Your task to perform on an android device: open app "PlayWell" (install if not already installed) and go to login screen Image 0: 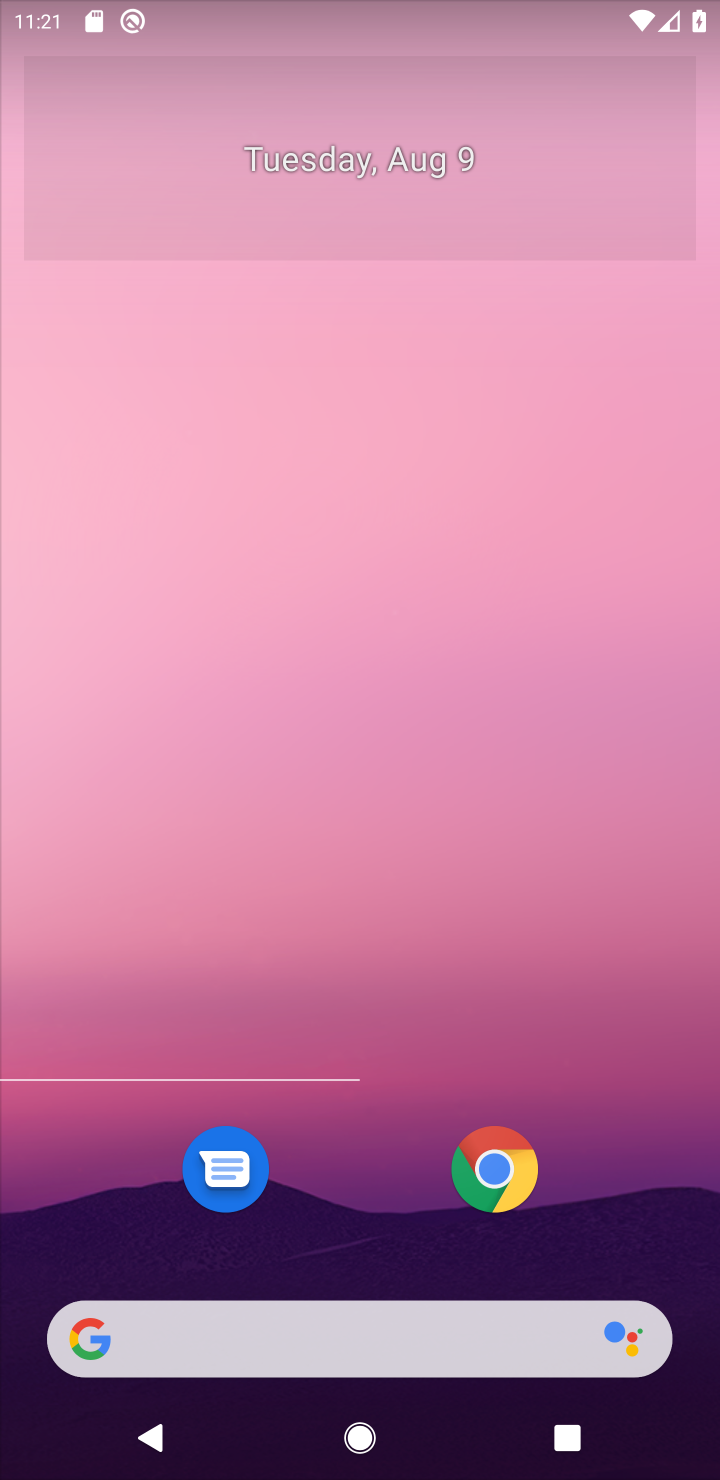
Step 0: press home button
Your task to perform on an android device: open app "PlayWell" (install if not already installed) and go to login screen Image 1: 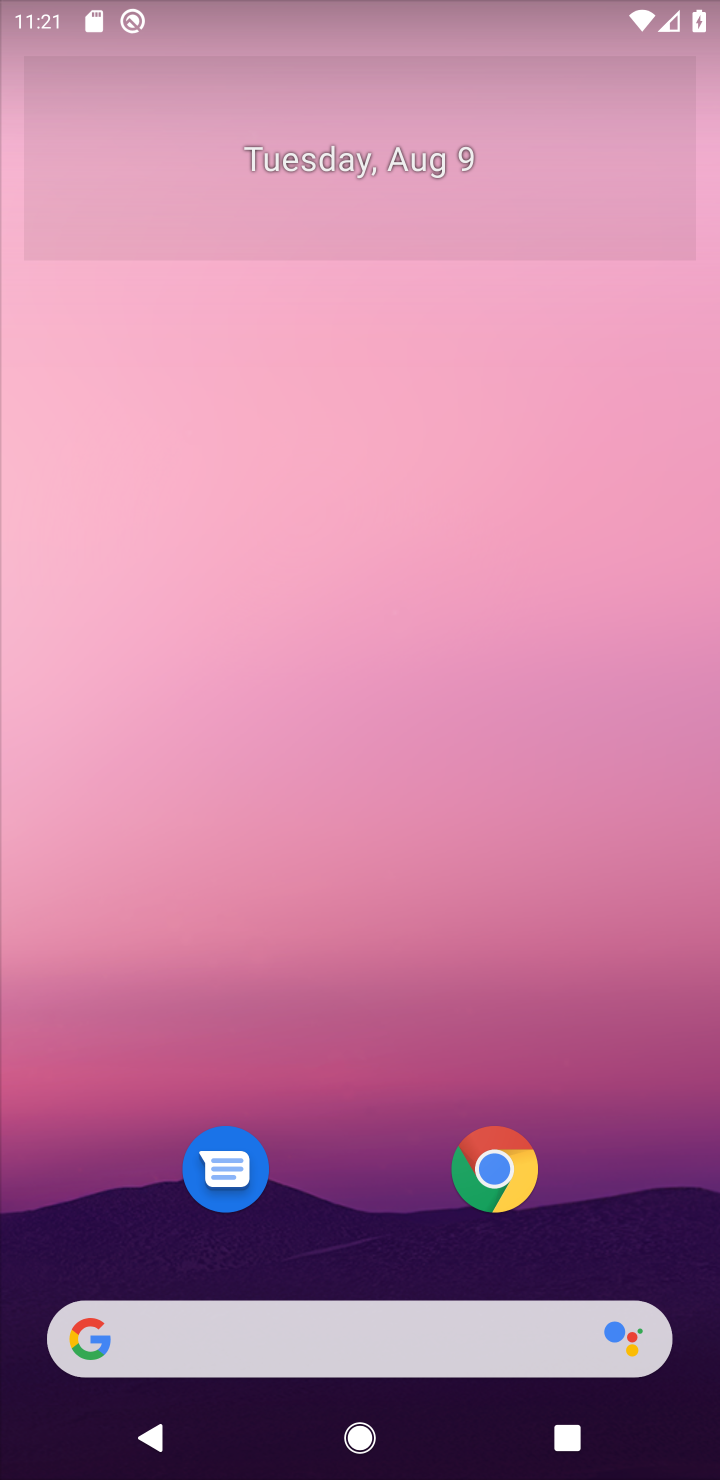
Step 1: drag from (605, 1134) to (603, 105)
Your task to perform on an android device: open app "PlayWell" (install if not already installed) and go to login screen Image 2: 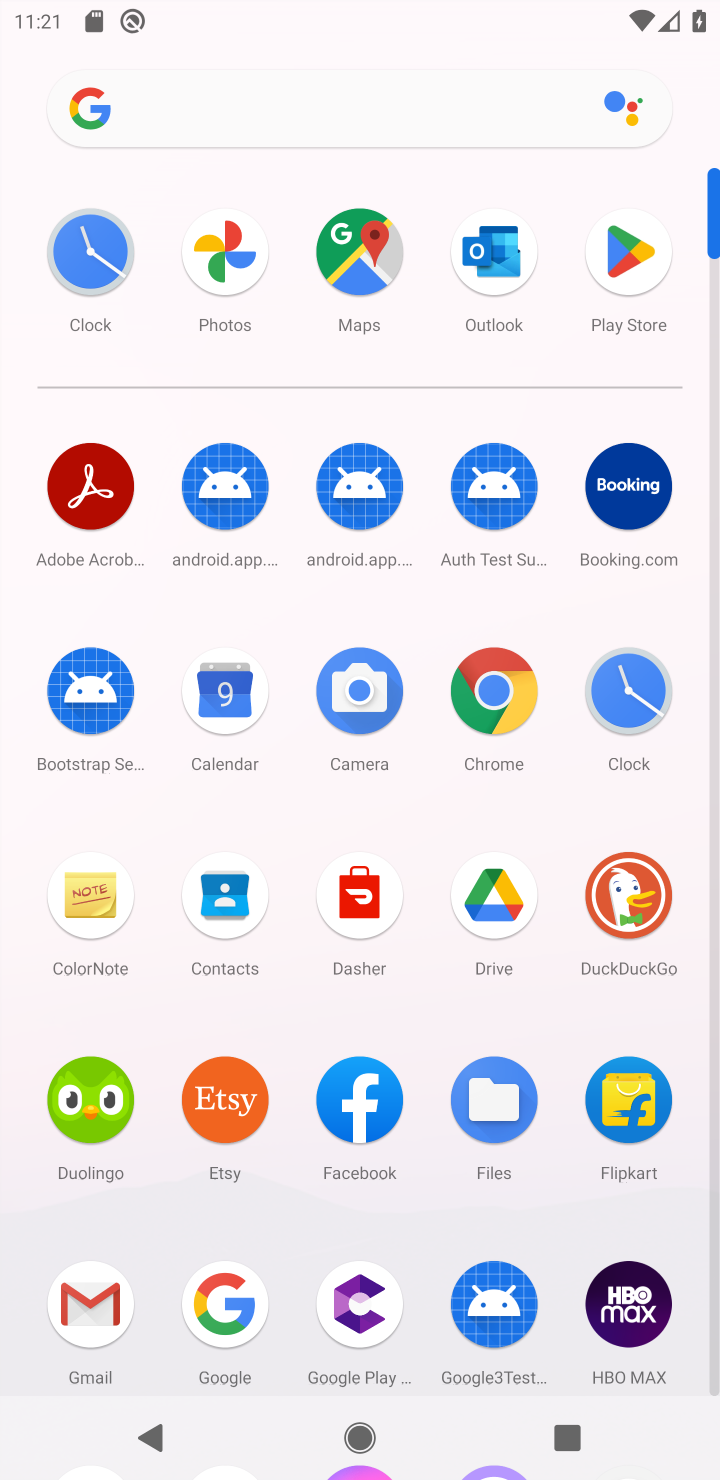
Step 2: click (626, 255)
Your task to perform on an android device: open app "PlayWell" (install if not already installed) and go to login screen Image 3: 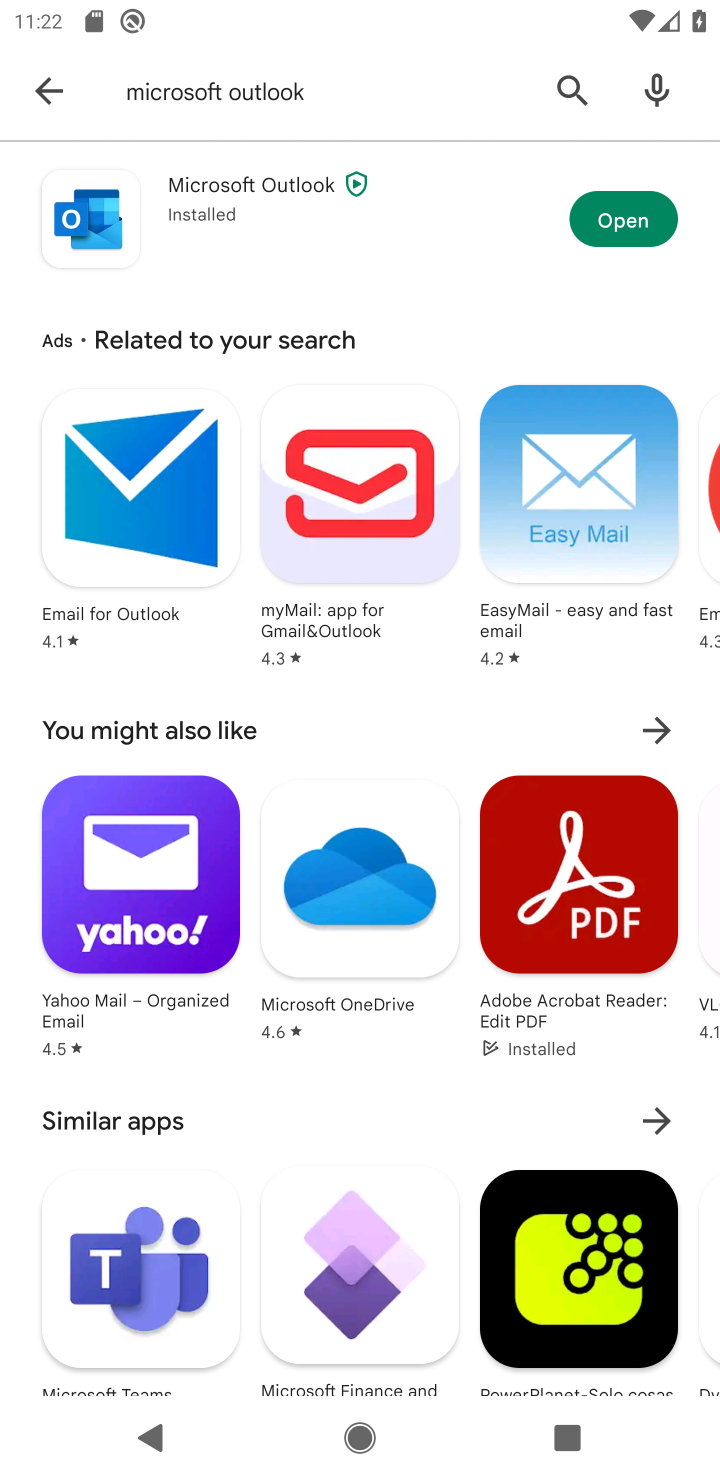
Step 3: click (561, 79)
Your task to perform on an android device: open app "PlayWell" (install if not already installed) and go to login screen Image 4: 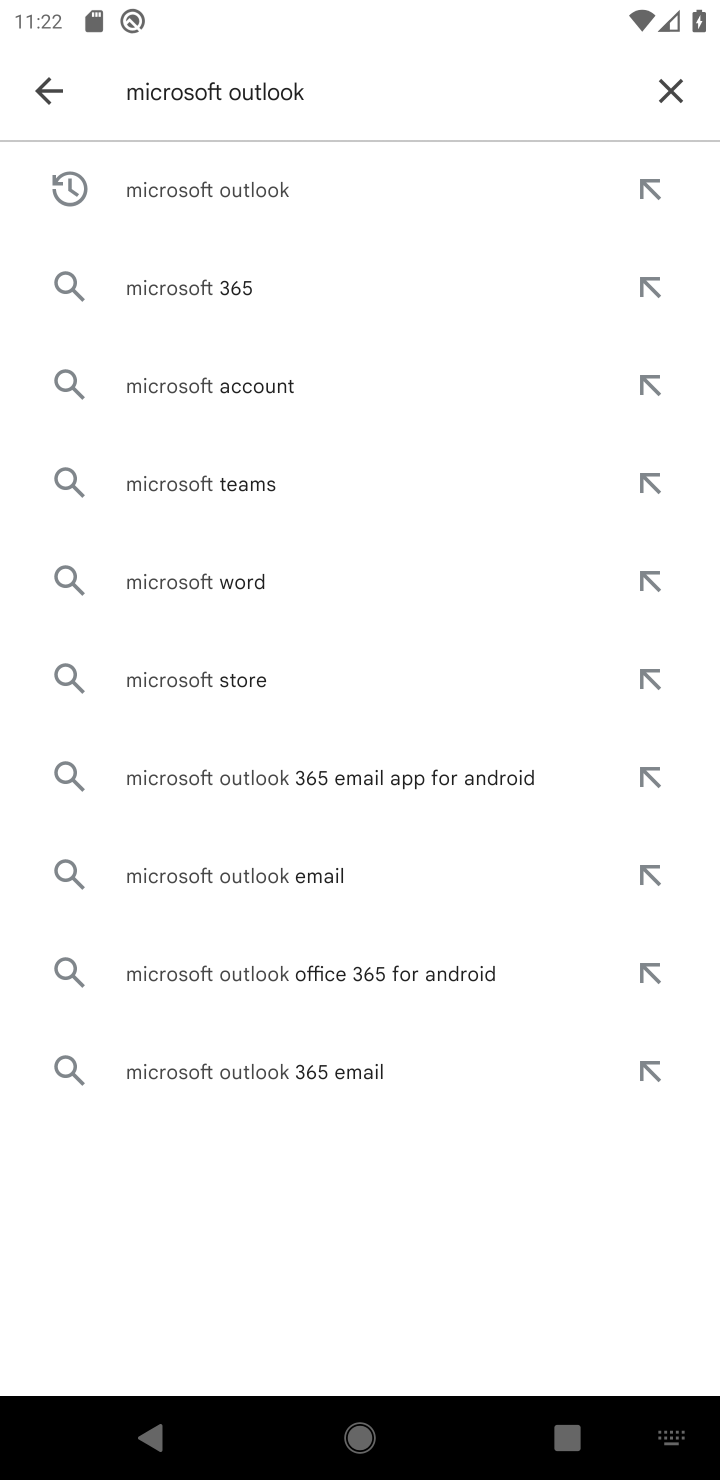
Step 4: click (679, 88)
Your task to perform on an android device: open app "PlayWell" (install if not already installed) and go to login screen Image 5: 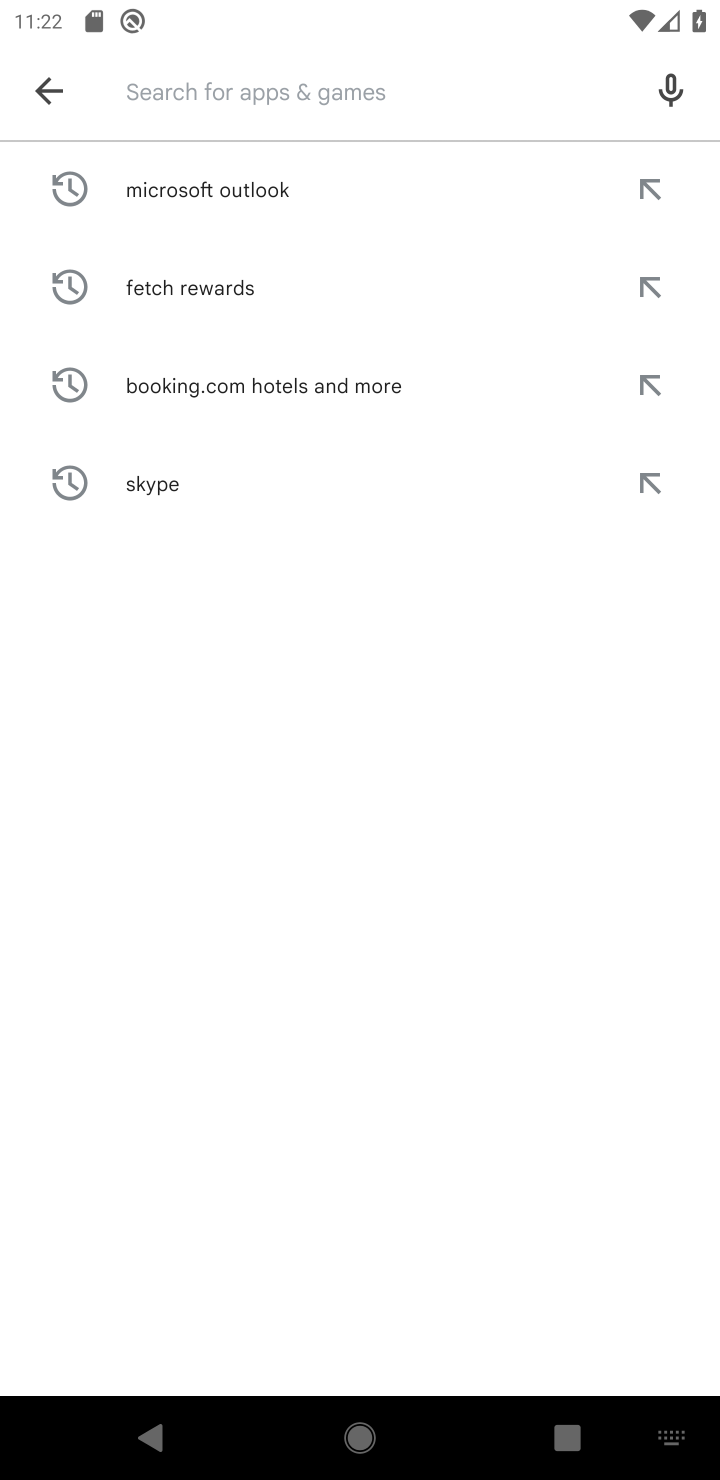
Step 5: click (334, 106)
Your task to perform on an android device: open app "PlayWell" (install if not already installed) and go to login screen Image 6: 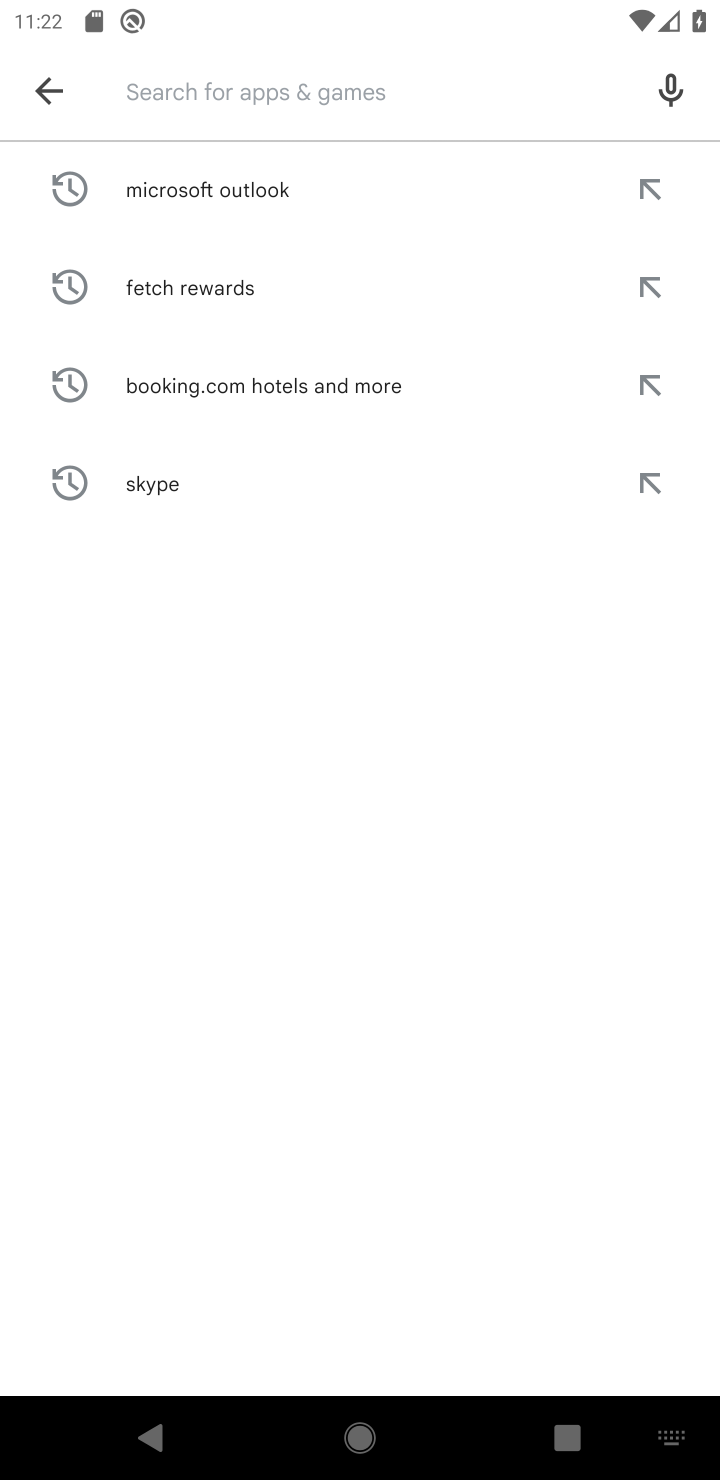
Step 6: type "play well"
Your task to perform on an android device: open app "PlayWell" (install if not already installed) and go to login screen Image 7: 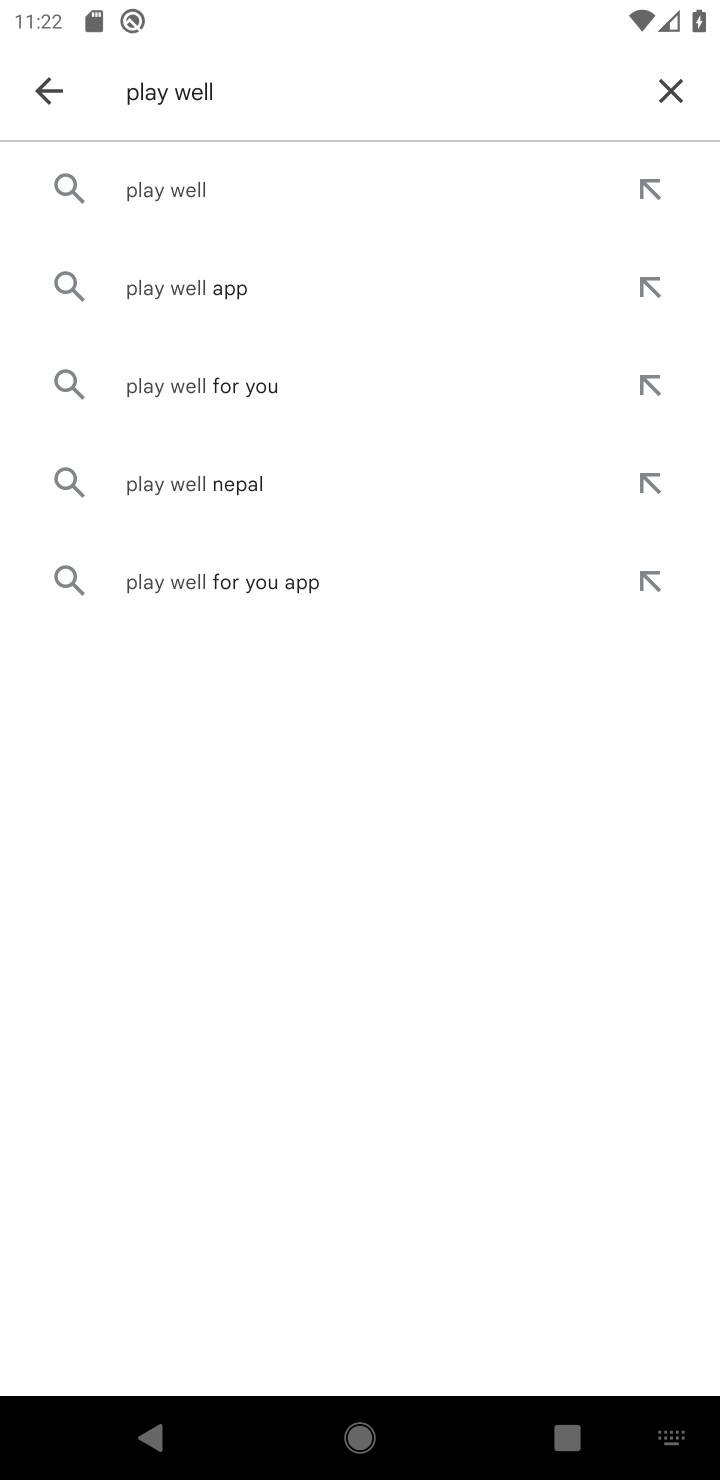
Step 7: click (174, 175)
Your task to perform on an android device: open app "PlayWell" (install if not already installed) and go to login screen Image 8: 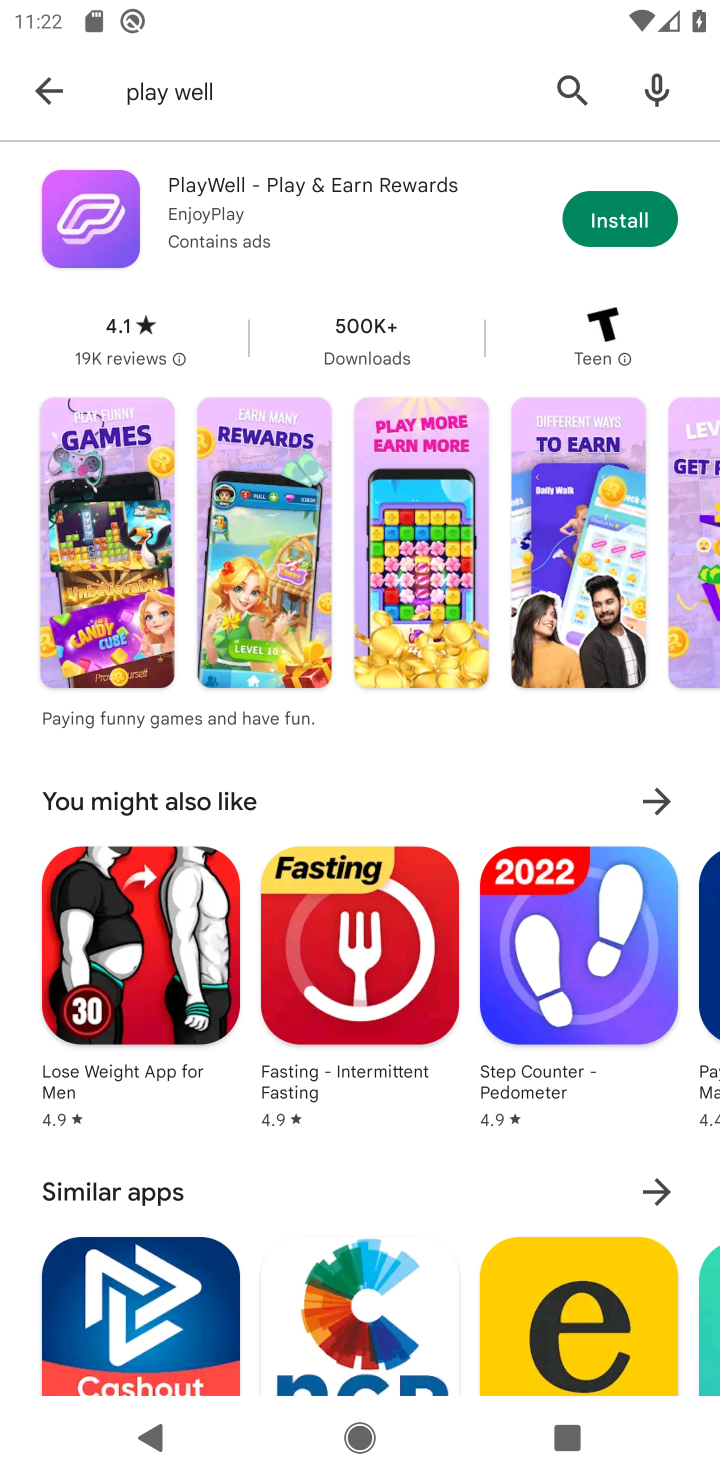
Step 8: click (613, 215)
Your task to perform on an android device: open app "PlayWell" (install if not already installed) and go to login screen Image 9: 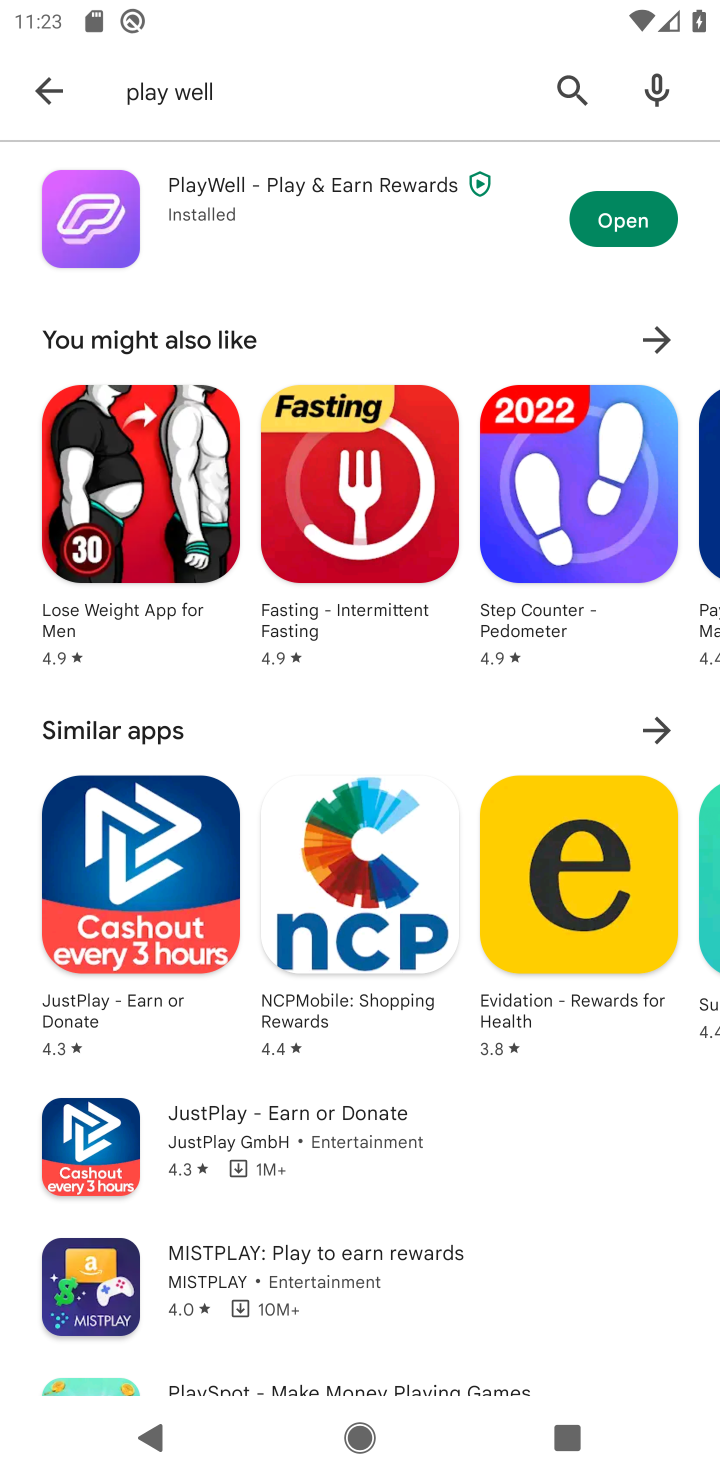
Step 9: click (629, 222)
Your task to perform on an android device: open app "PlayWell" (install if not already installed) and go to login screen Image 10: 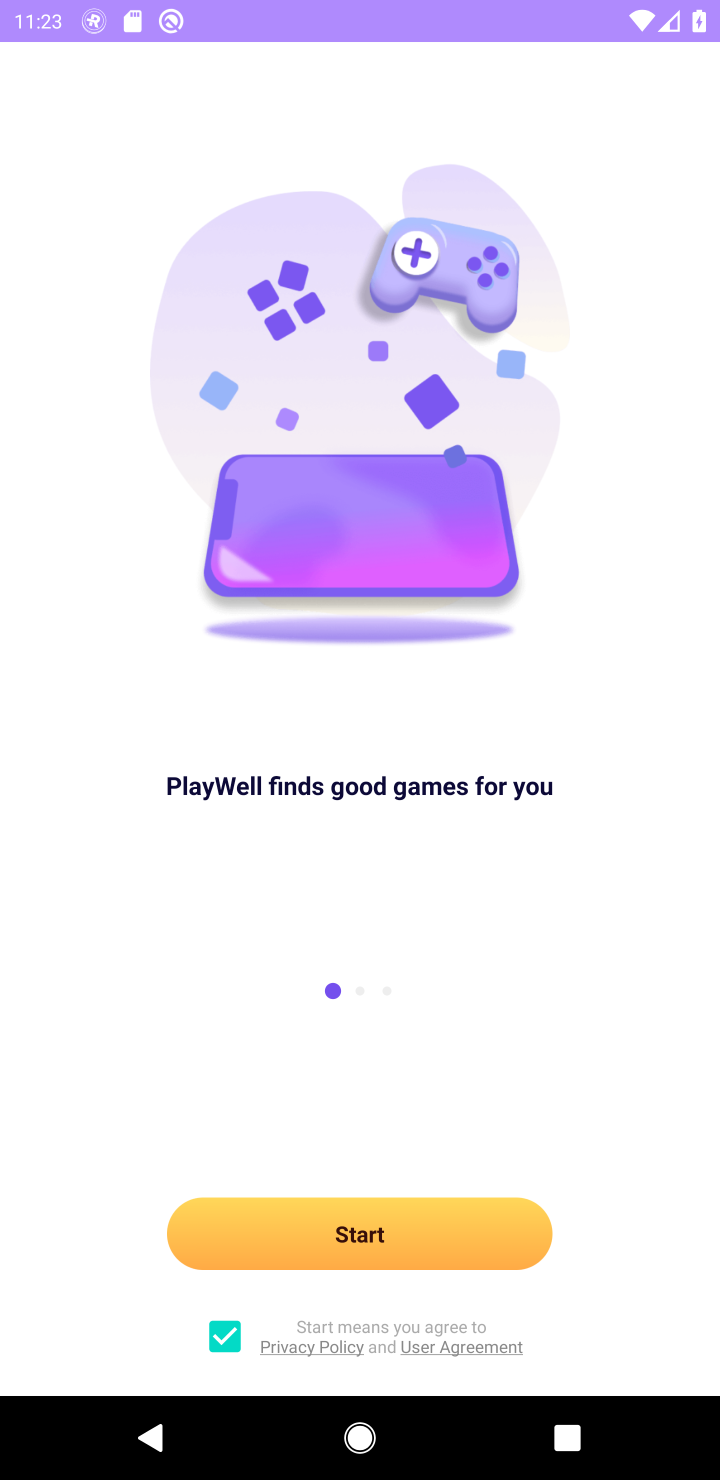
Step 10: task complete